Your task to perform on an android device: snooze an email in the gmail app Image 0: 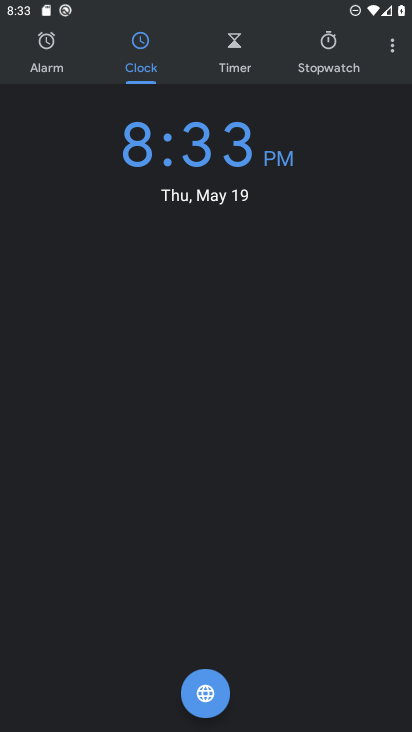
Step 0: press home button
Your task to perform on an android device: snooze an email in the gmail app Image 1: 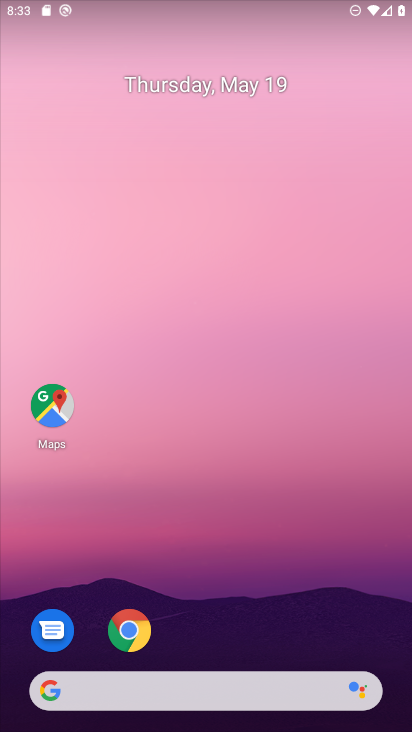
Step 1: drag from (208, 476) to (249, 187)
Your task to perform on an android device: snooze an email in the gmail app Image 2: 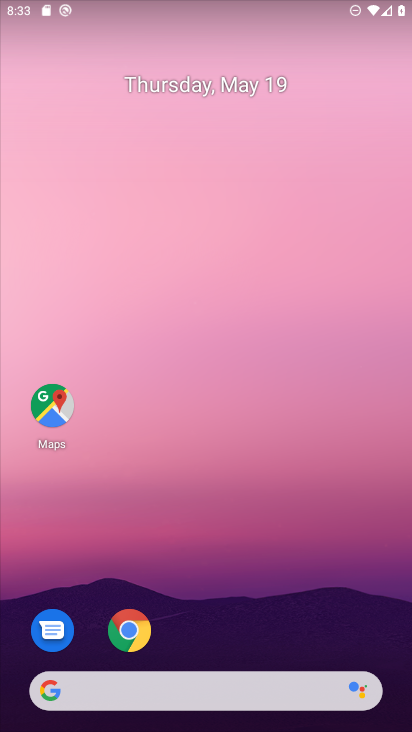
Step 2: click (202, 635)
Your task to perform on an android device: snooze an email in the gmail app Image 3: 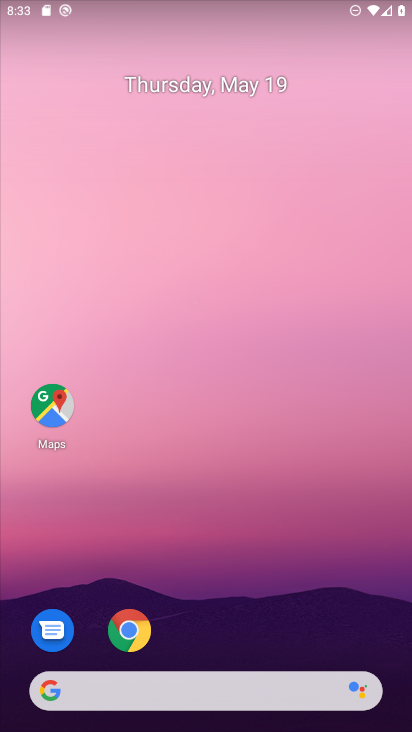
Step 3: drag from (202, 635) to (189, 19)
Your task to perform on an android device: snooze an email in the gmail app Image 4: 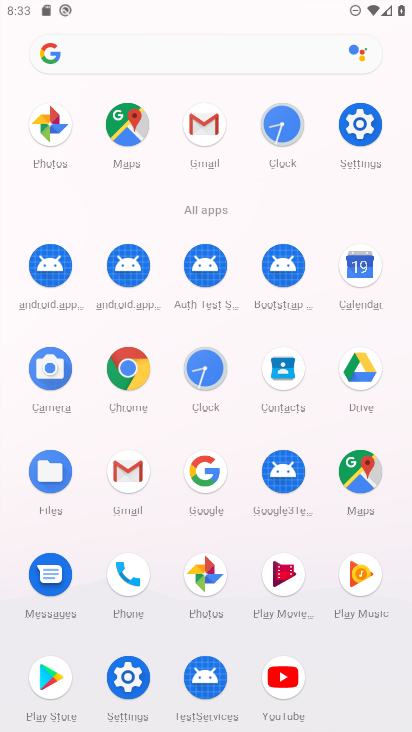
Step 4: click (198, 105)
Your task to perform on an android device: snooze an email in the gmail app Image 5: 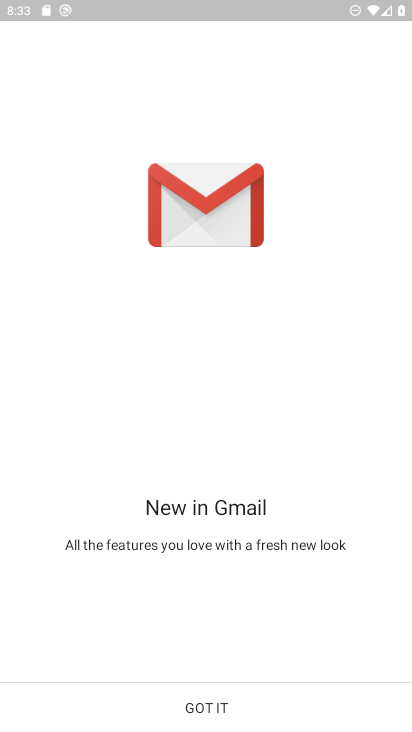
Step 5: click (145, 709)
Your task to perform on an android device: snooze an email in the gmail app Image 6: 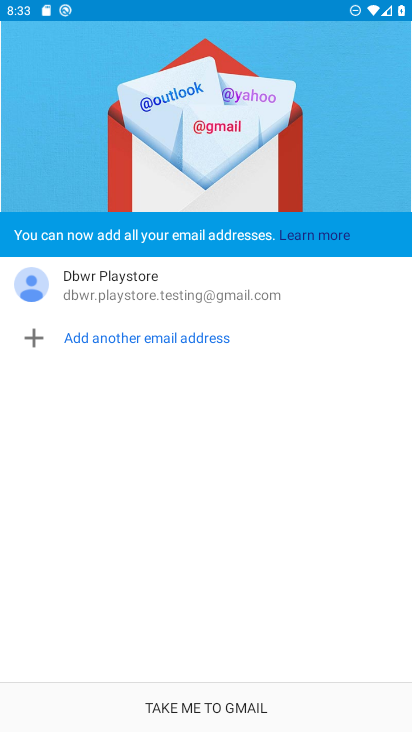
Step 6: click (145, 709)
Your task to perform on an android device: snooze an email in the gmail app Image 7: 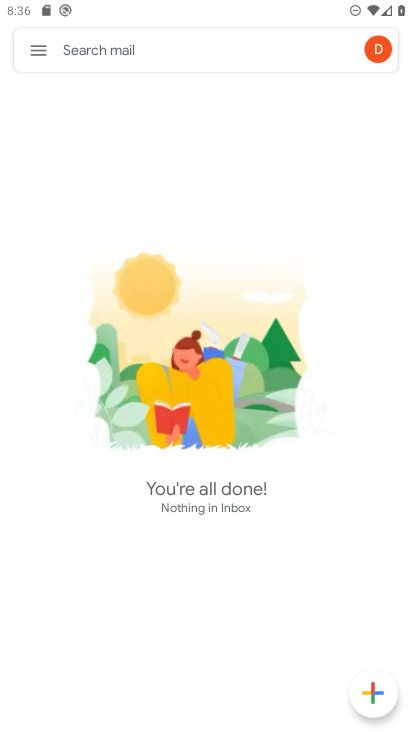
Step 7: task complete